Your task to perform on an android device: turn off picture-in-picture Image 0: 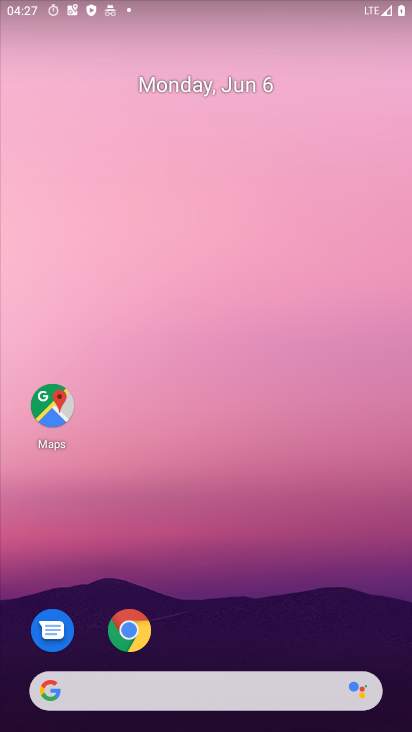
Step 0: drag from (231, 624) to (157, 70)
Your task to perform on an android device: turn off picture-in-picture Image 1: 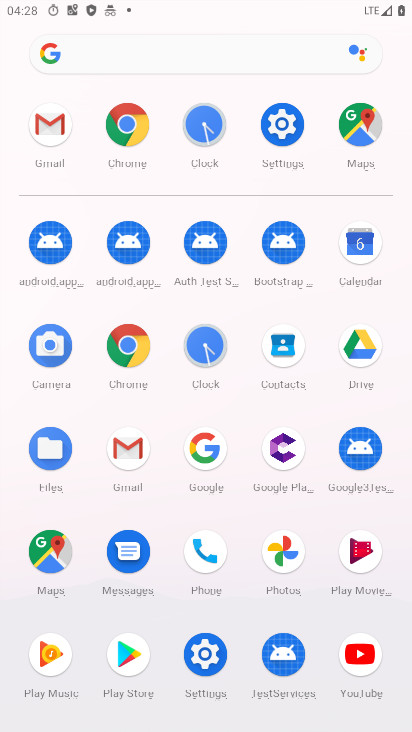
Step 1: click (128, 348)
Your task to perform on an android device: turn off picture-in-picture Image 2: 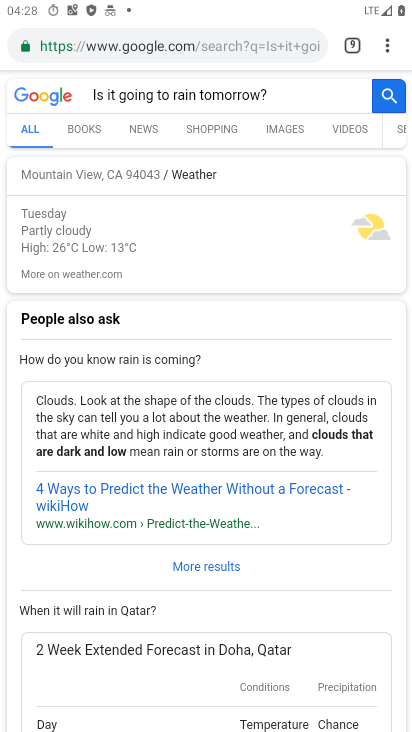
Step 2: drag from (384, 52) to (234, 514)
Your task to perform on an android device: turn off picture-in-picture Image 3: 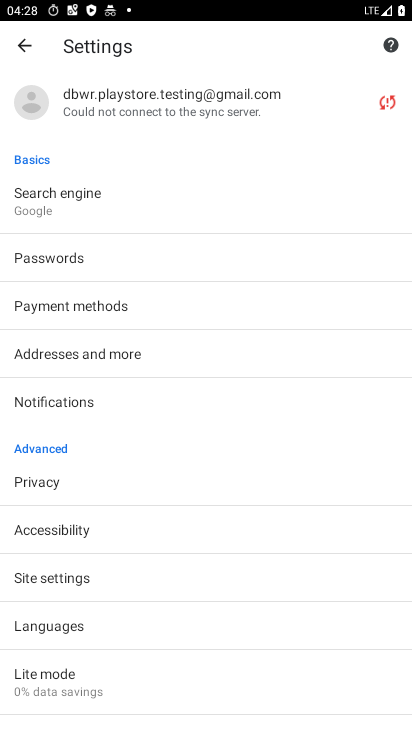
Step 3: click (91, 577)
Your task to perform on an android device: turn off picture-in-picture Image 4: 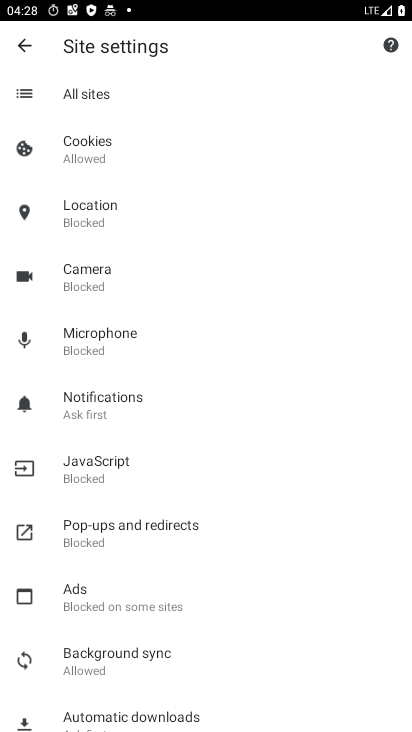
Step 4: click (113, 523)
Your task to perform on an android device: turn off picture-in-picture Image 5: 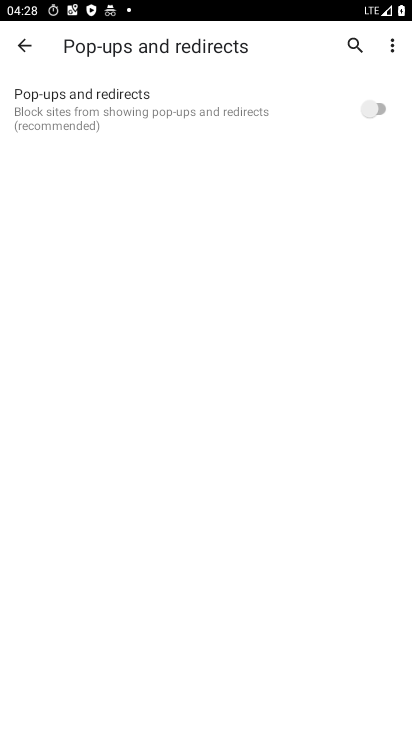
Step 5: task complete